Your task to perform on an android device: open a new tab in the chrome app Image 0: 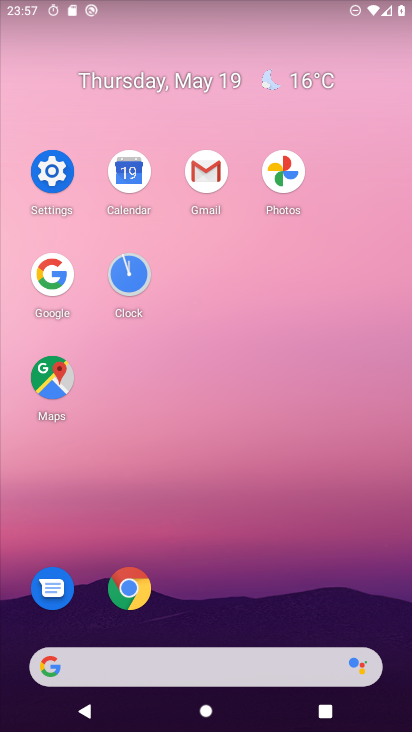
Step 0: click (142, 591)
Your task to perform on an android device: open a new tab in the chrome app Image 1: 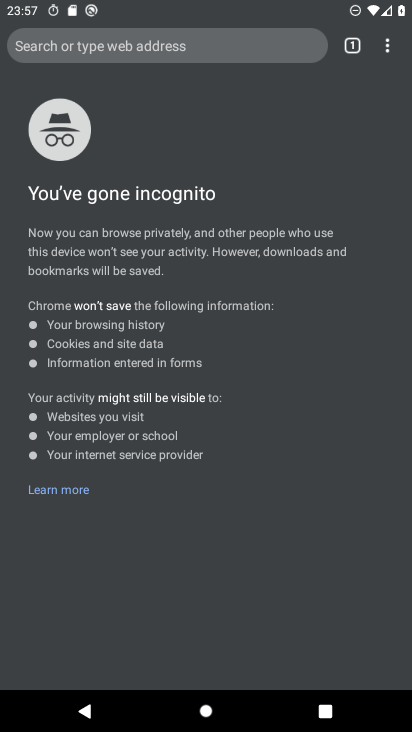
Step 1: click (353, 57)
Your task to perform on an android device: open a new tab in the chrome app Image 2: 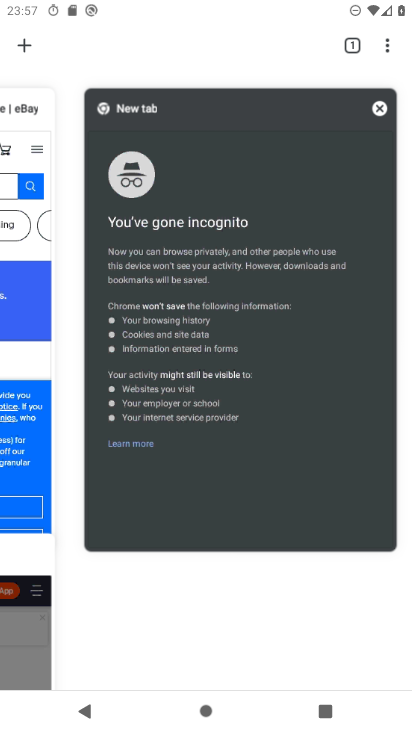
Step 2: click (31, 45)
Your task to perform on an android device: open a new tab in the chrome app Image 3: 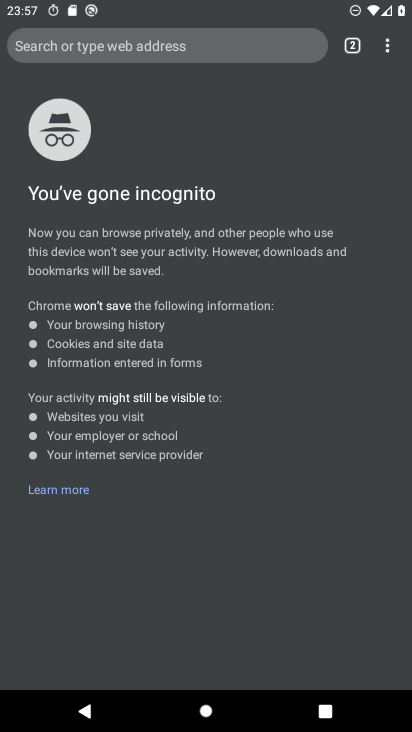
Step 3: task complete